Your task to perform on an android device: toggle sleep mode Image 0: 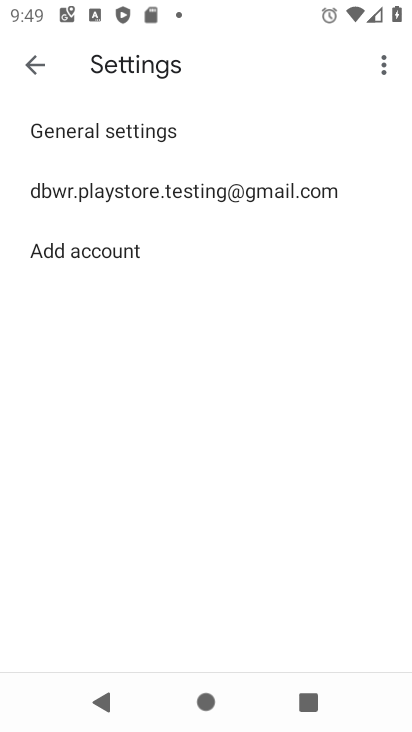
Step 0: press back button
Your task to perform on an android device: toggle sleep mode Image 1: 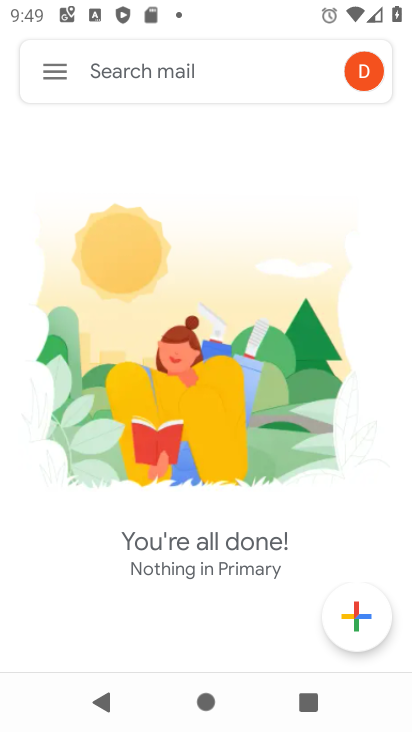
Step 1: press home button
Your task to perform on an android device: toggle sleep mode Image 2: 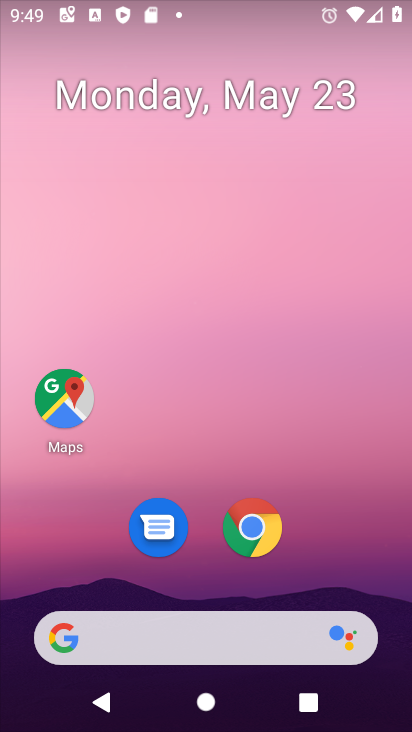
Step 2: drag from (356, 556) to (286, 32)
Your task to perform on an android device: toggle sleep mode Image 3: 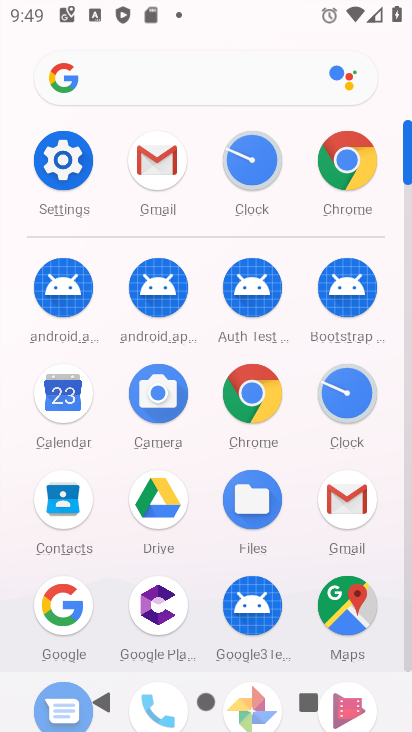
Step 3: click (60, 149)
Your task to perform on an android device: toggle sleep mode Image 4: 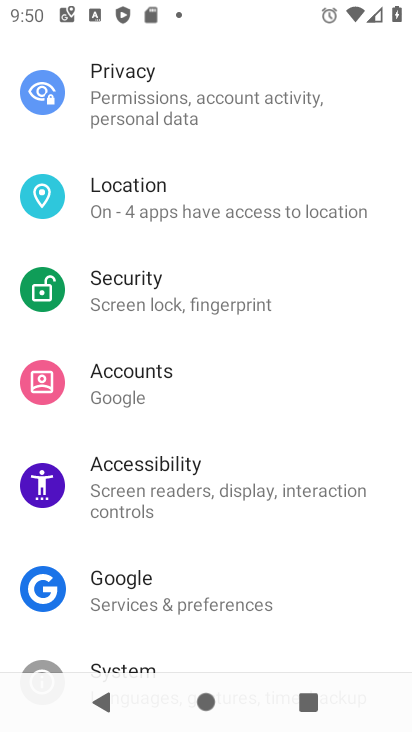
Step 4: drag from (246, 161) to (273, 584)
Your task to perform on an android device: toggle sleep mode Image 5: 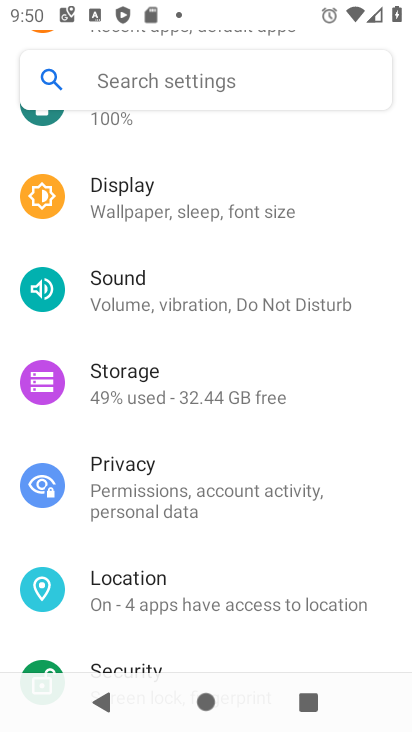
Step 5: click (231, 204)
Your task to perform on an android device: toggle sleep mode Image 6: 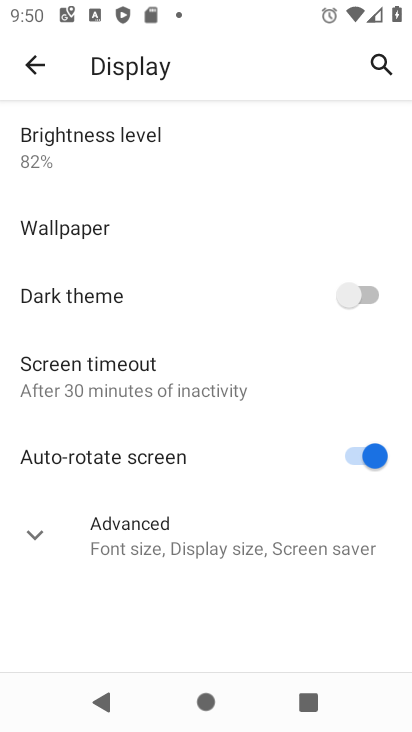
Step 6: click (43, 535)
Your task to perform on an android device: toggle sleep mode Image 7: 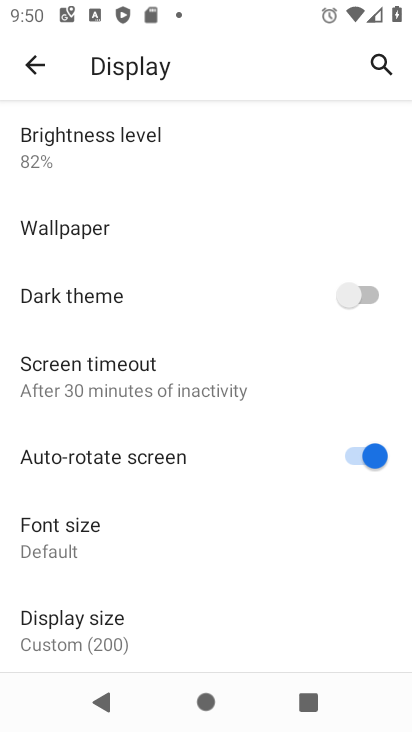
Step 7: task complete